Your task to perform on an android device: Go to sound settings Image 0: 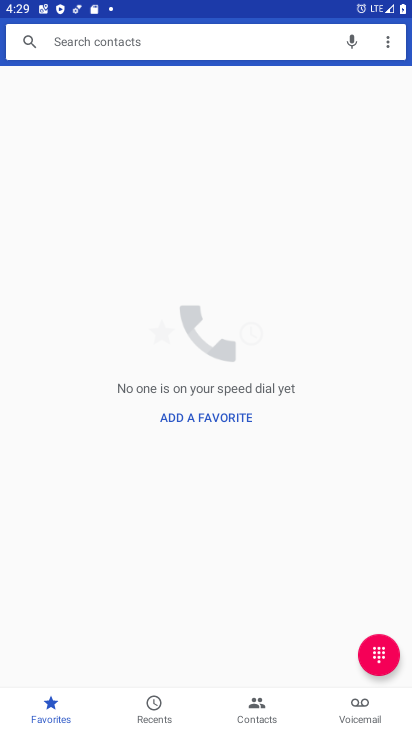
Step 0: press home button
Your task to perform on an android device: Go to sound settings Image 1: 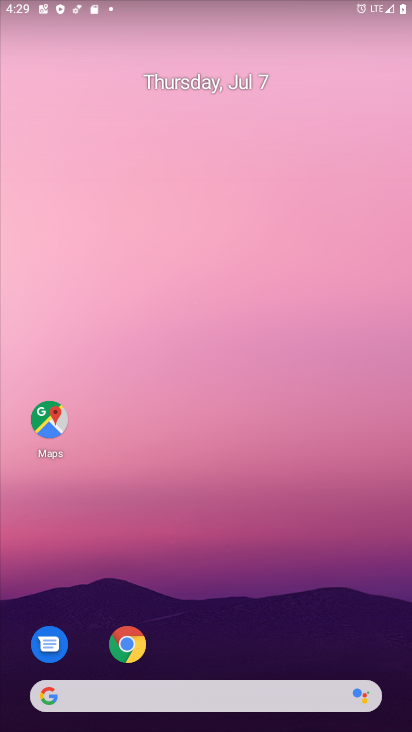
Step 1: drag from (231, 652) to (234, 231)
Your task to perform on an android device: Go to sound settings Image 2: 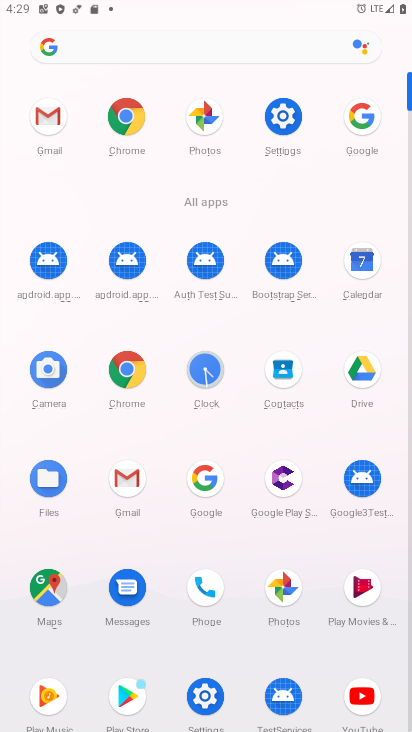
Step 2: click (284, 115)
Your task to perform on an android device: Go to sound settings Image 3: 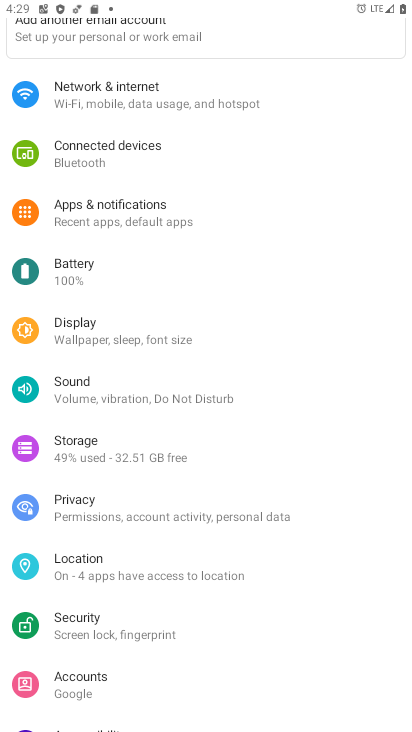
Step 3: click (82, 393)
Your task to perform on an android device: Go to sound settings Image 4: 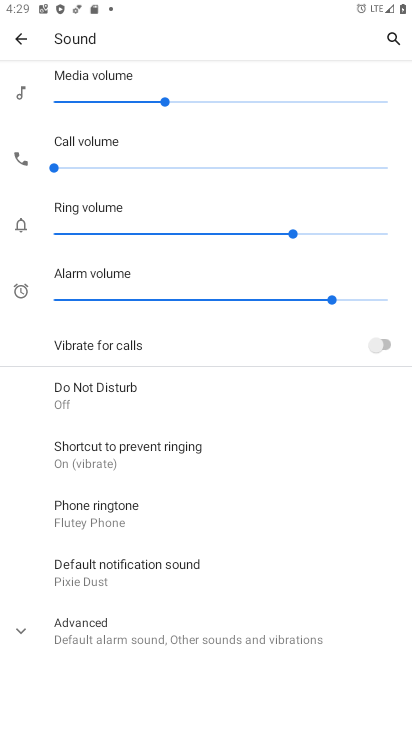
Step 4: task complete